Your task to perform on an android device: Search for "panasonic triple a" on ebay, select the first entry, add it to the cart, then select checkout. Image 0: 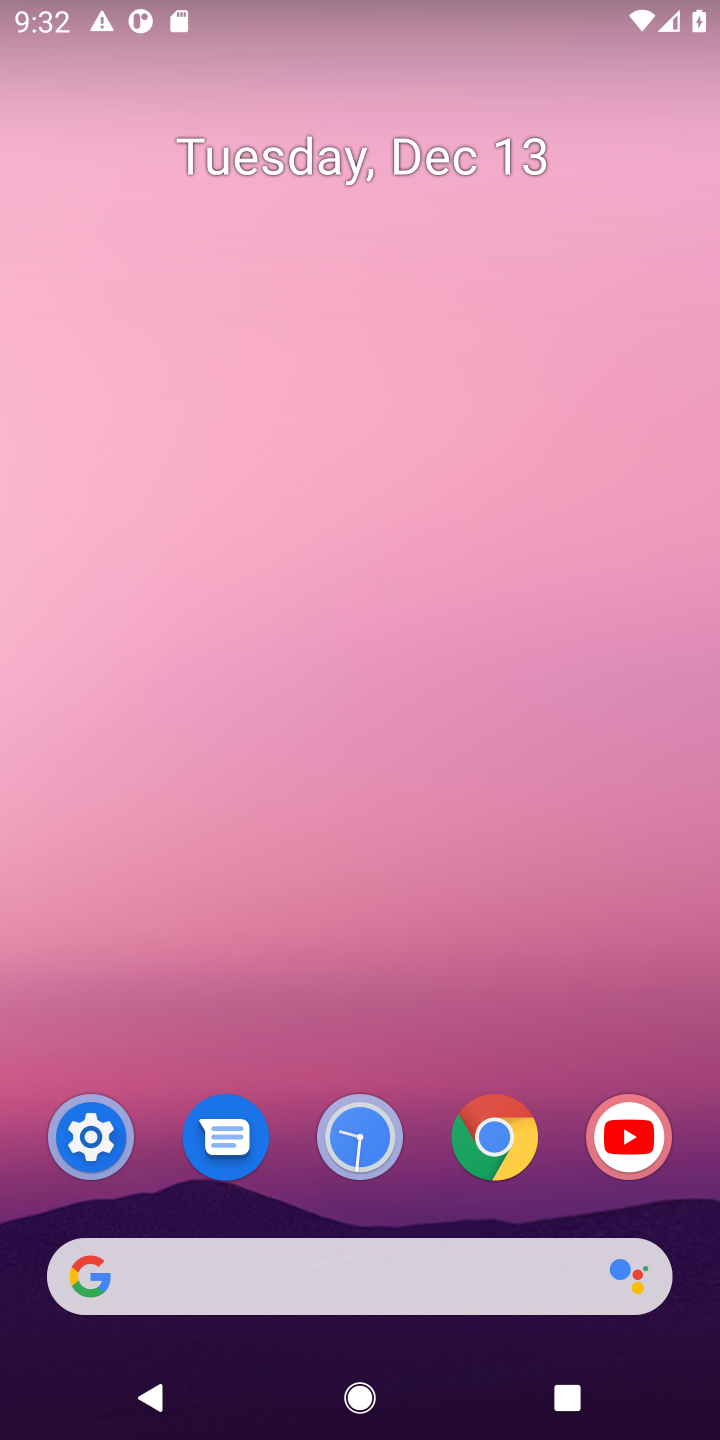
Step 0: click (514, 1143)
Your task to perform on an android device: Search for "panasonic triple a" on ebay, select the first entry, add it to the cart, then select checkout. Image 1: 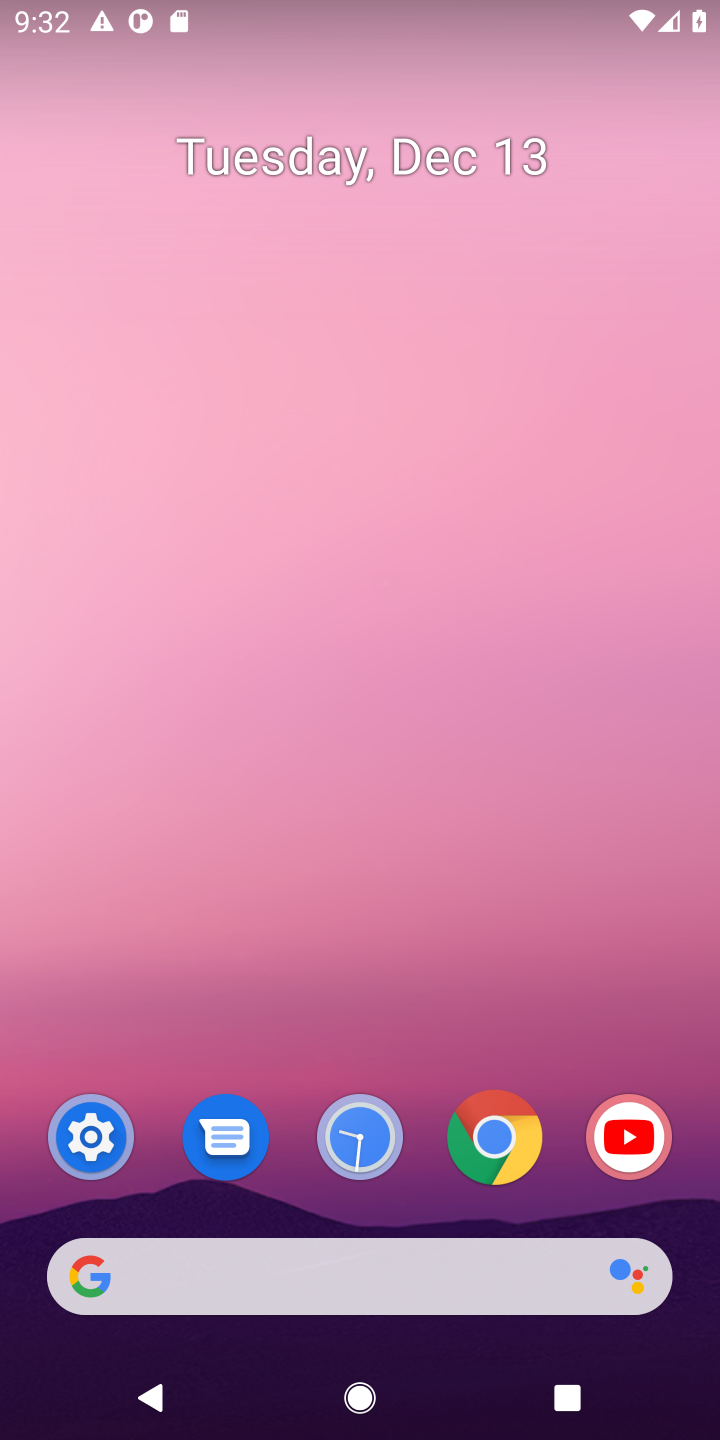
Step 1: click (514, 1143)
Your task to perform on an android device: Search for "panasonic triple a" on ebay, select the first entry, add it to the cart, then select checkout. Image 2: 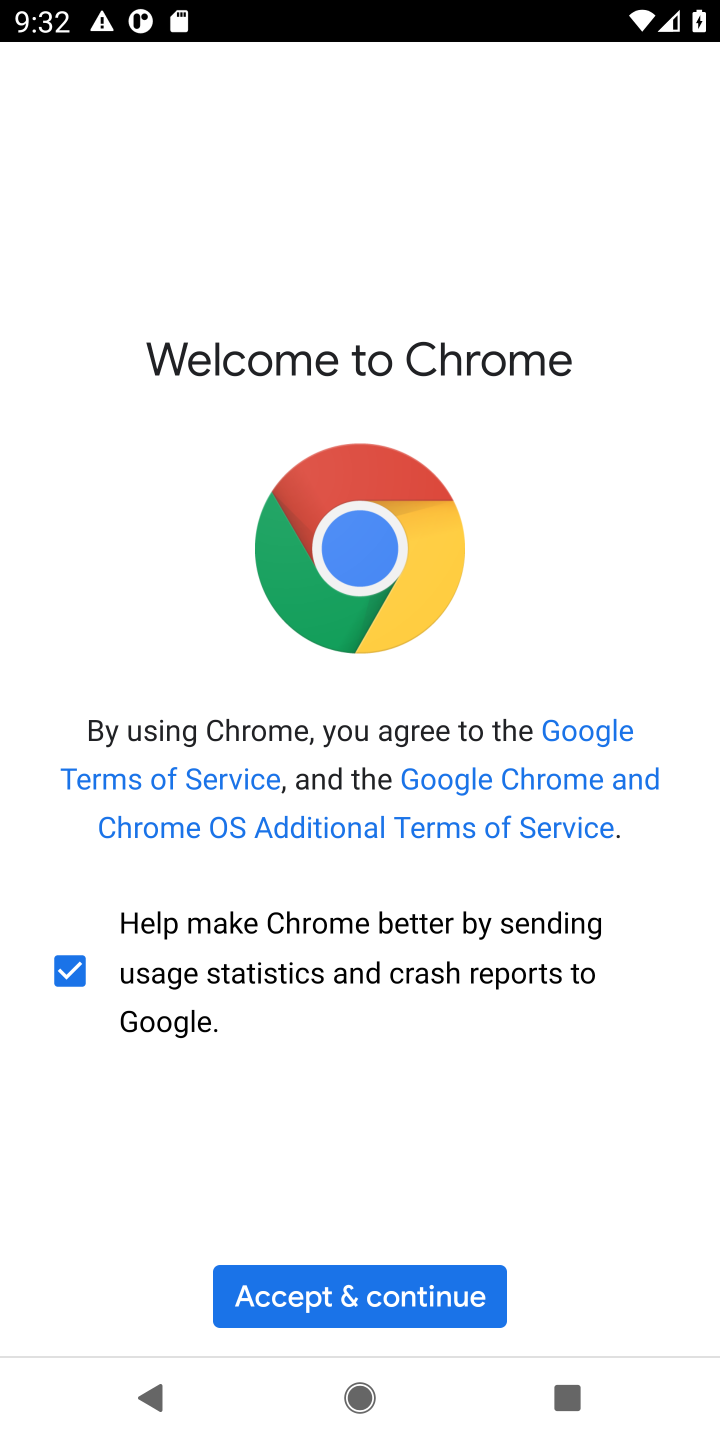
Step 2: click (389, 1281)
Your task to perform on an android device: Search for "panasonic triple a" on ebay, select the first entry, add it to the cart, then select checkout. Image 3: 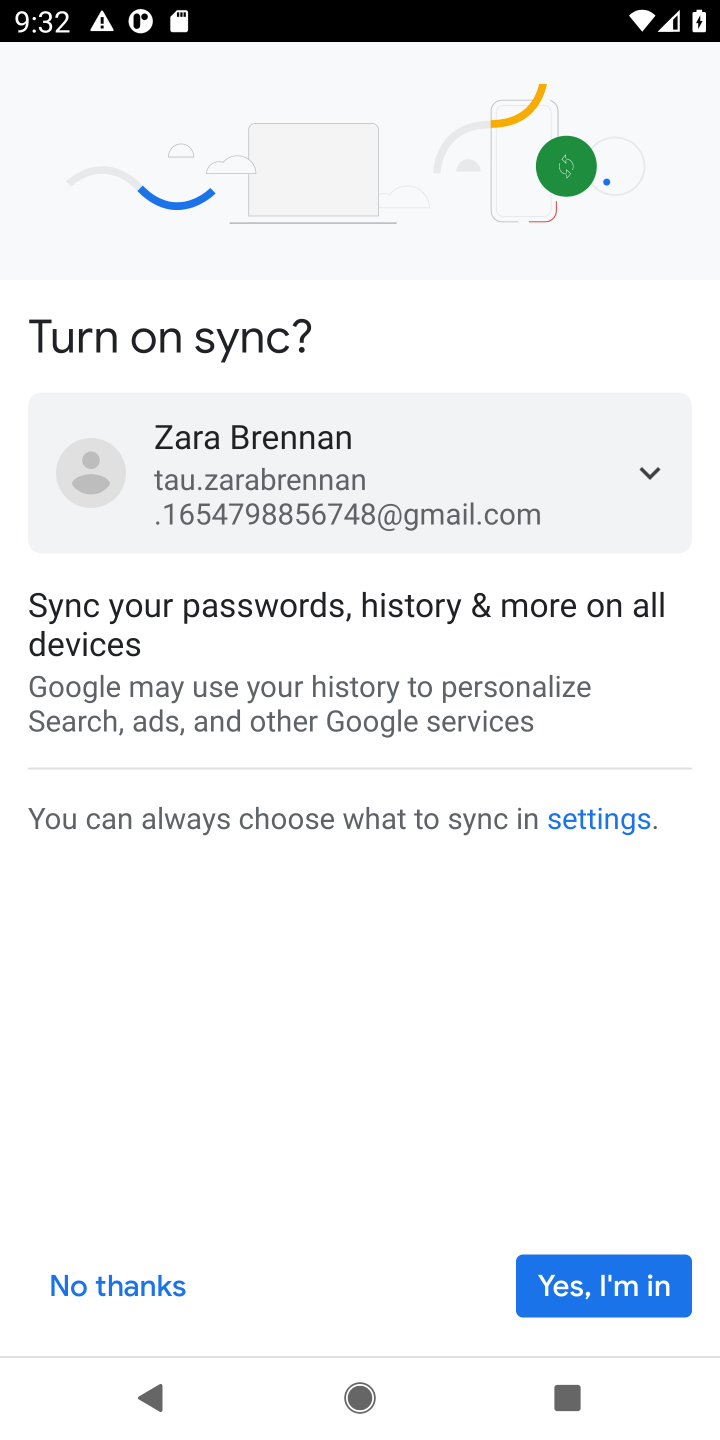
Step 3: click (616, 1294)
Your task to perform on an android device: Search for "panasonic triple a" on ebay, select the first entry, add it to the cart, then select checkout. Image 4: 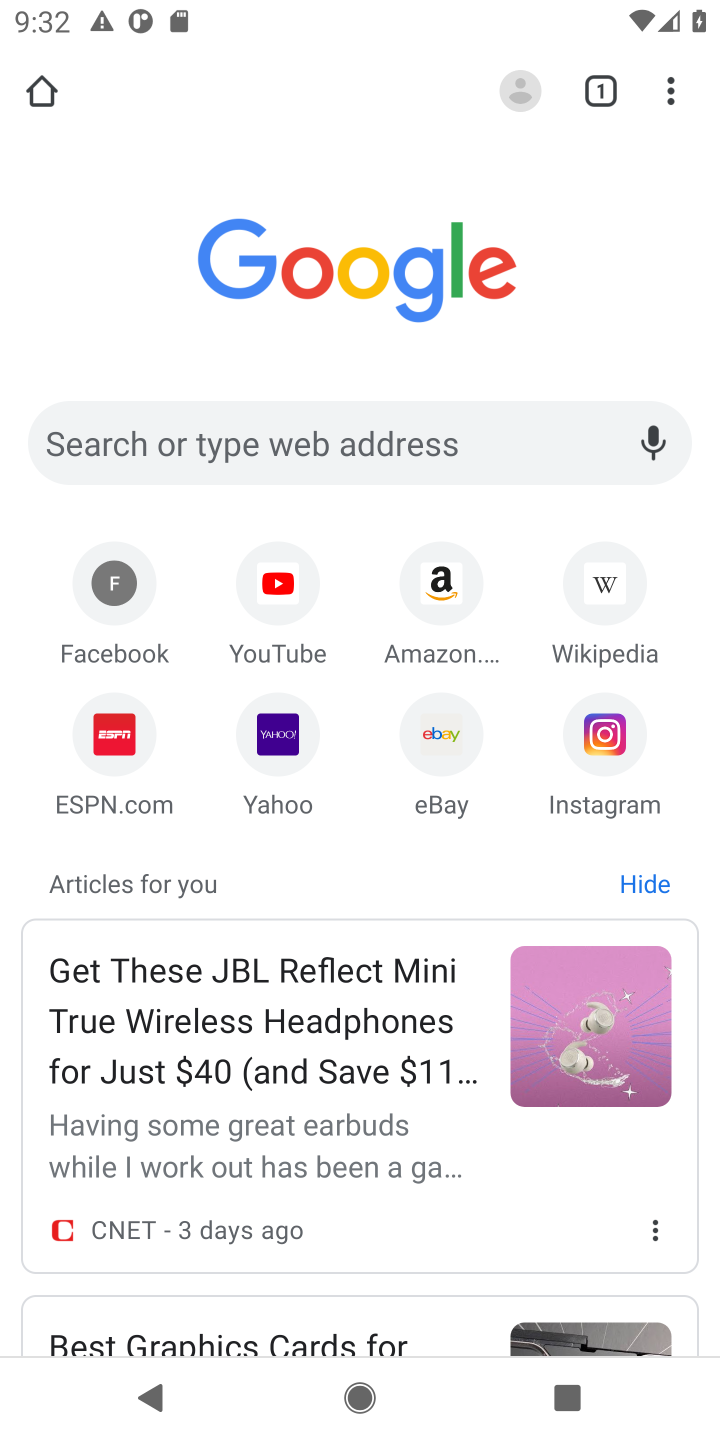
Step 4: click (432, 746)
Your task to perform on an android device: Search for "panasonic triple a" on ebay, select the first entry, add it to the cart, then select checkout. Image 5: 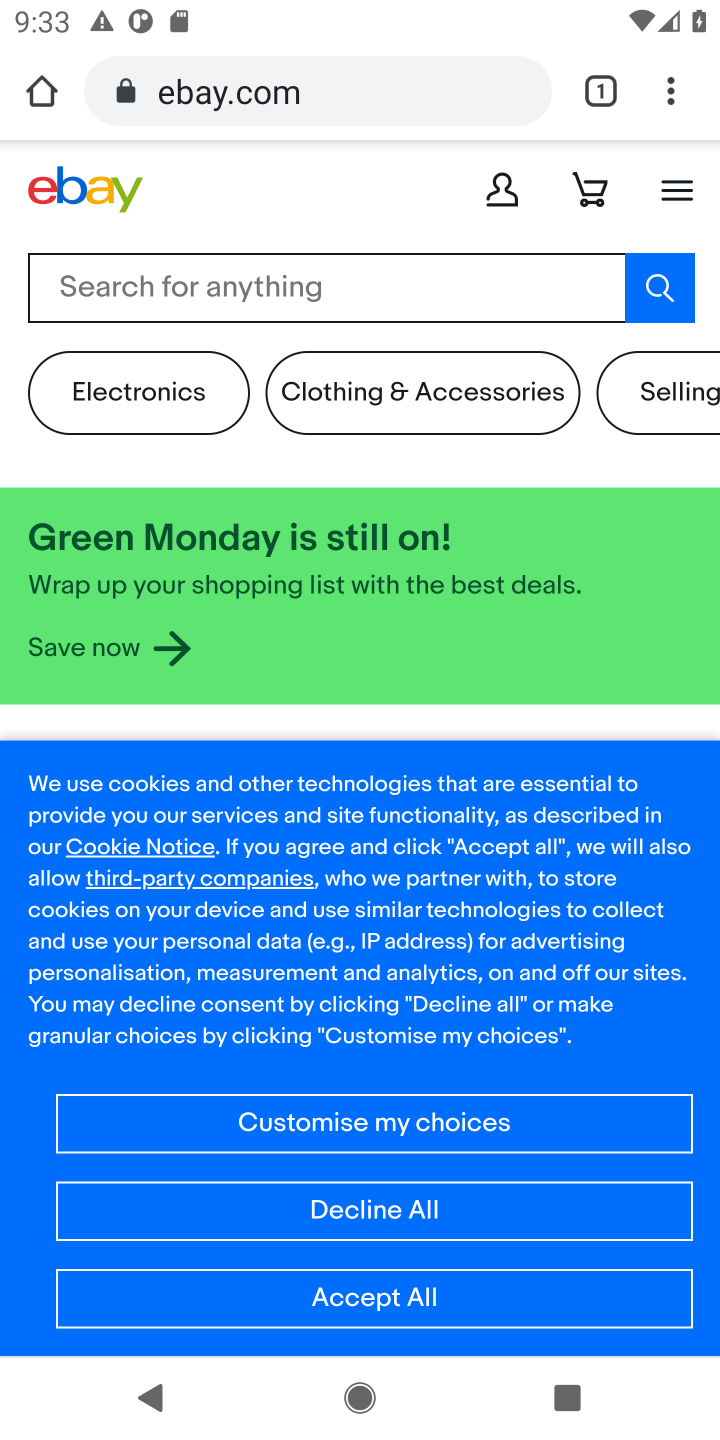
Step 5: click (324, 1198)
Your task to perform on an android device: Search for "panasonic triple a" on ebay, select the first entry, add it to the cart, then select checkout. Image 6: 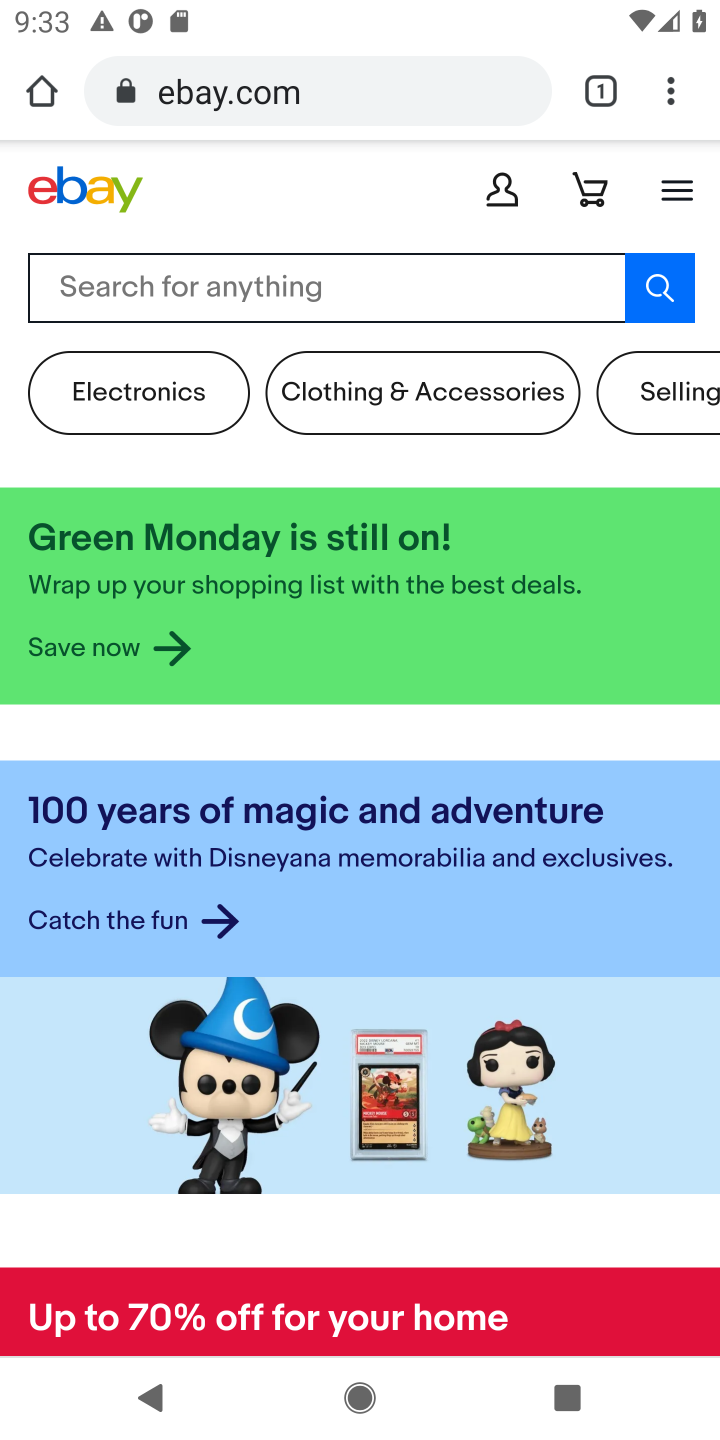
Step 6: click (310, 285)
Your task to perform on an android device: Search for "panasonic triple a" on ebay, select the first entry, add it to the cart, then select checkout. Image 7: 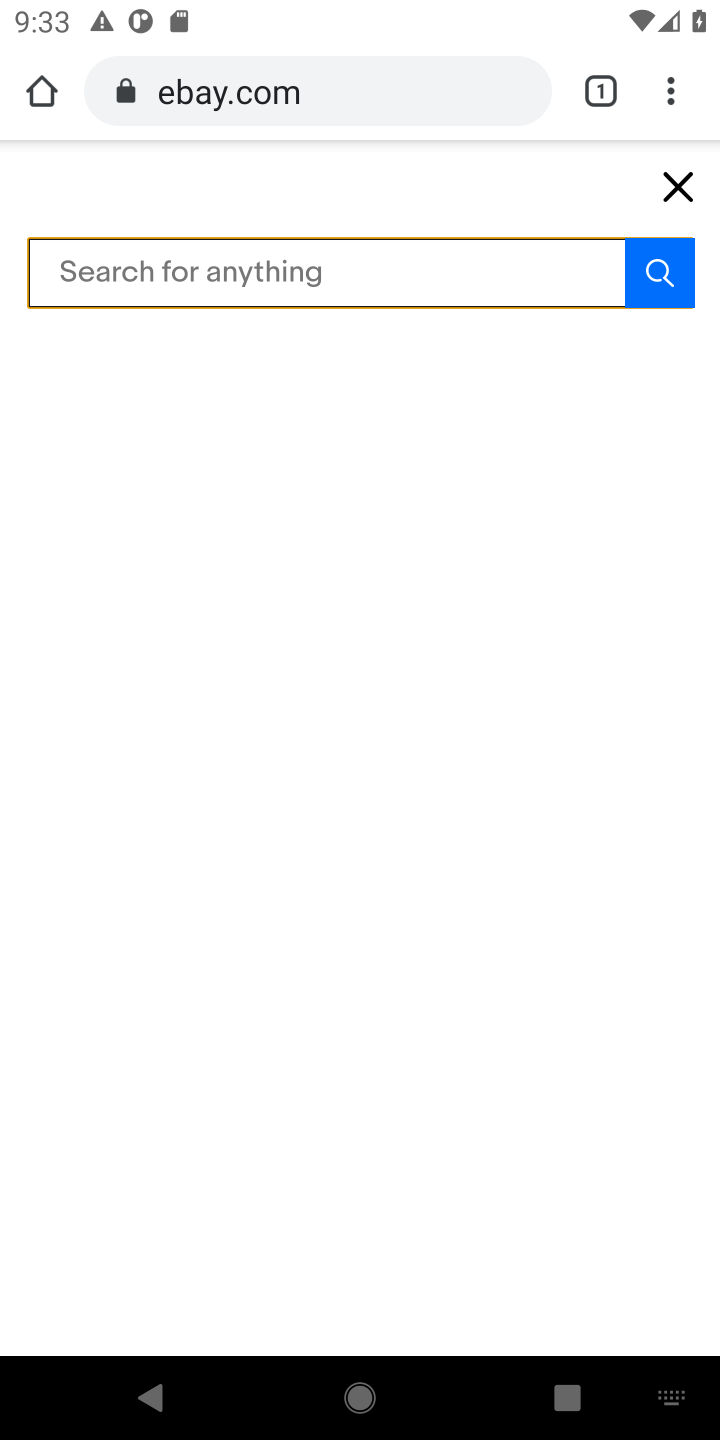
Step 7: type "panasonic triple a"
Your task to perform on an android device: Search for "panasonic triple a" on ebay, select the first entry, add it to the cart, then select checkout. Image 8: 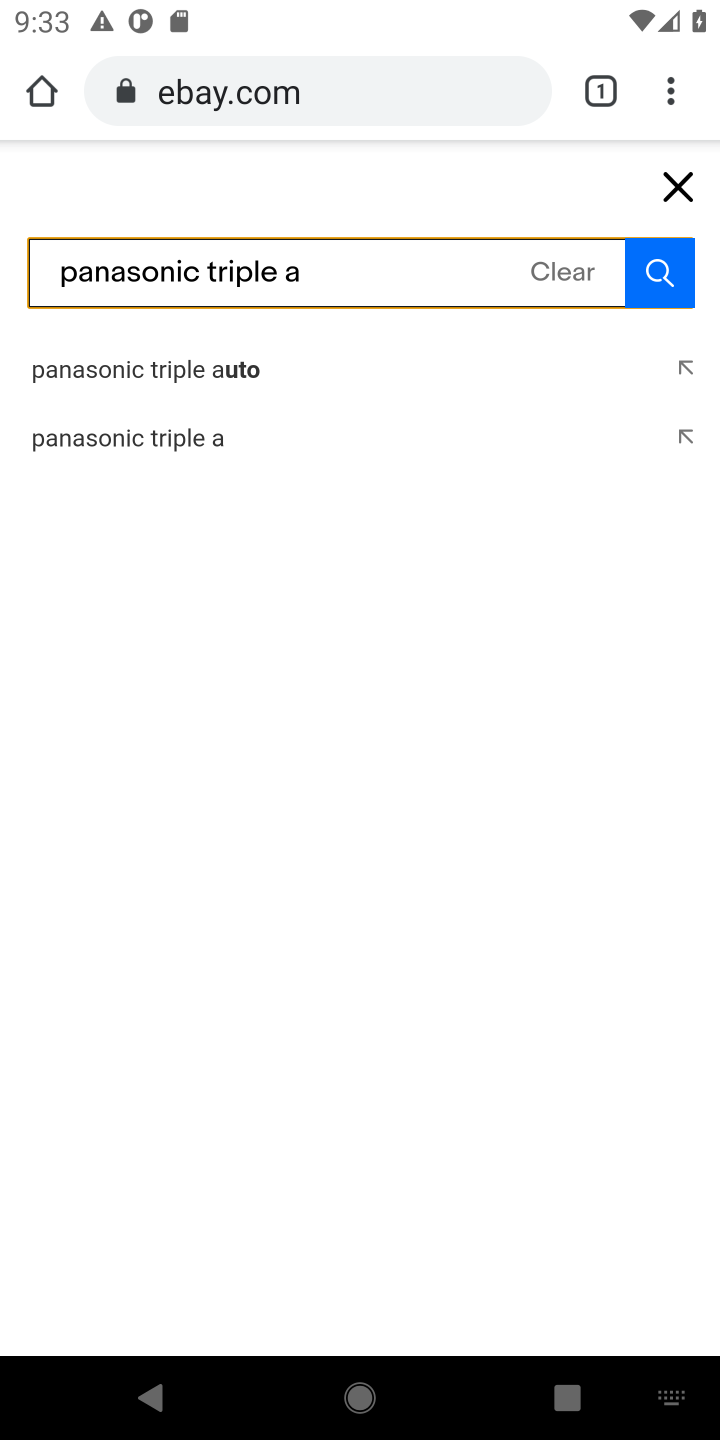
Step 8: click (644, 268)
Your task to perform on an android device: Search for "panasonic triple a" on ebay, select the first entry, add it to the cart, then select checkout. Image 9: 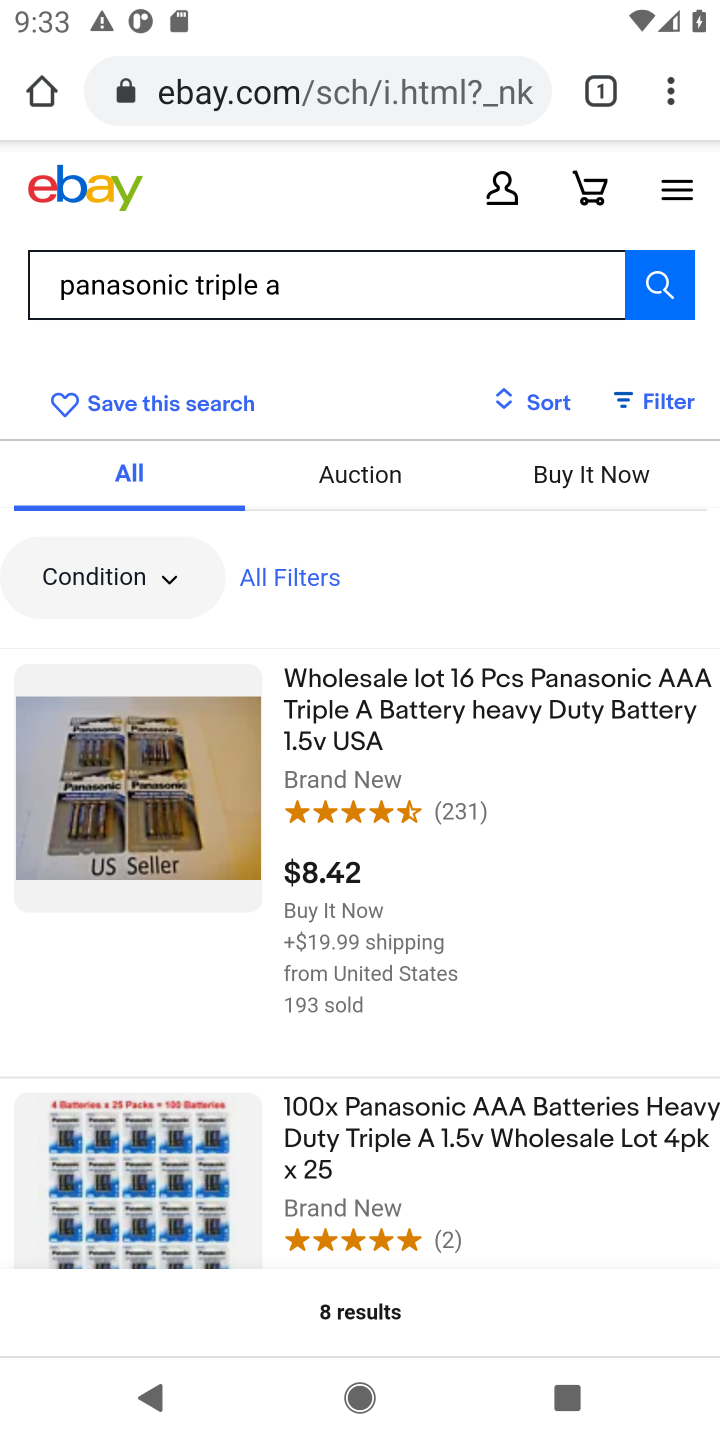
Step 9: click (465, 721)
Your task to perform on an android device: Search for "panasonic triple a" on ebay, select the first entry, add it to the cart, then select checkout. Image 10: 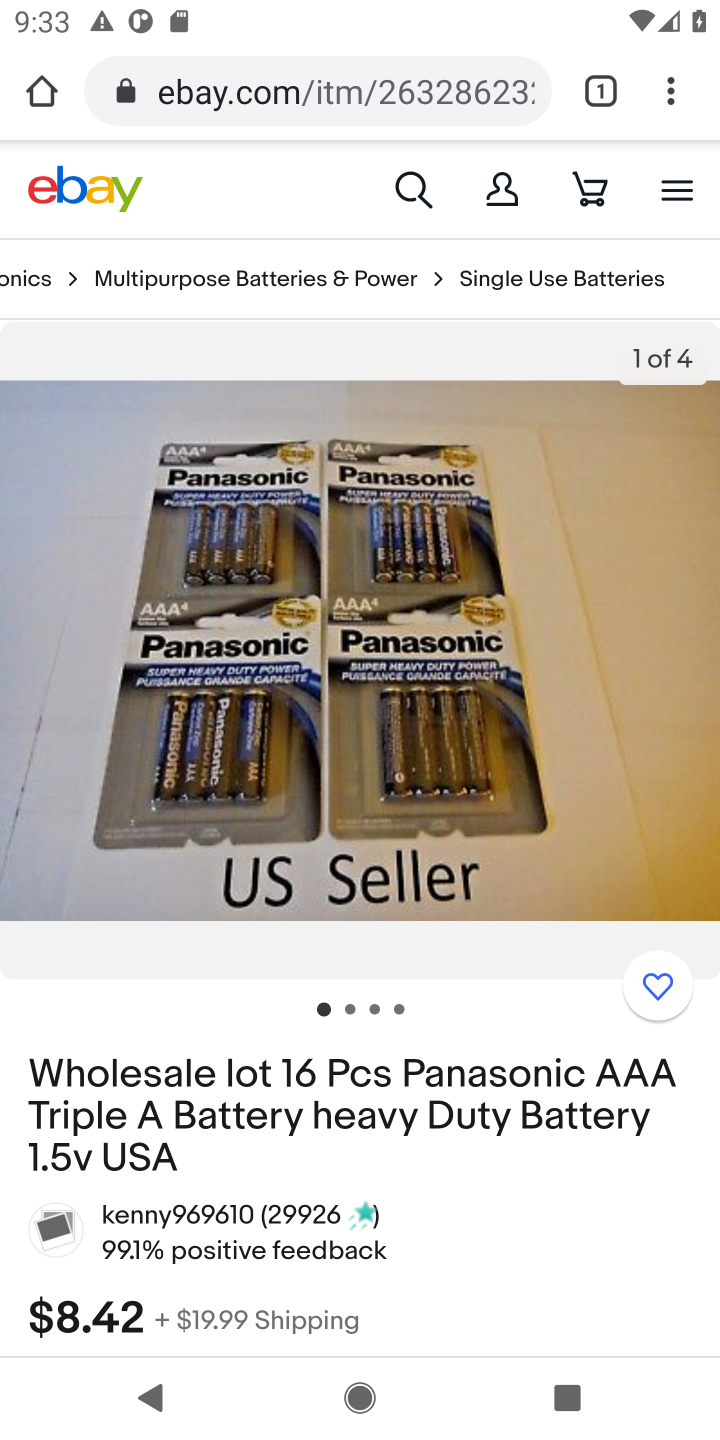
Step 10: drag from (442, 1265) to (565, 372)
Your task to perform on an android device: Search for "panasonic triple a" on ebay, select the first entry, add it to the cart, then select checkout. Image 11: 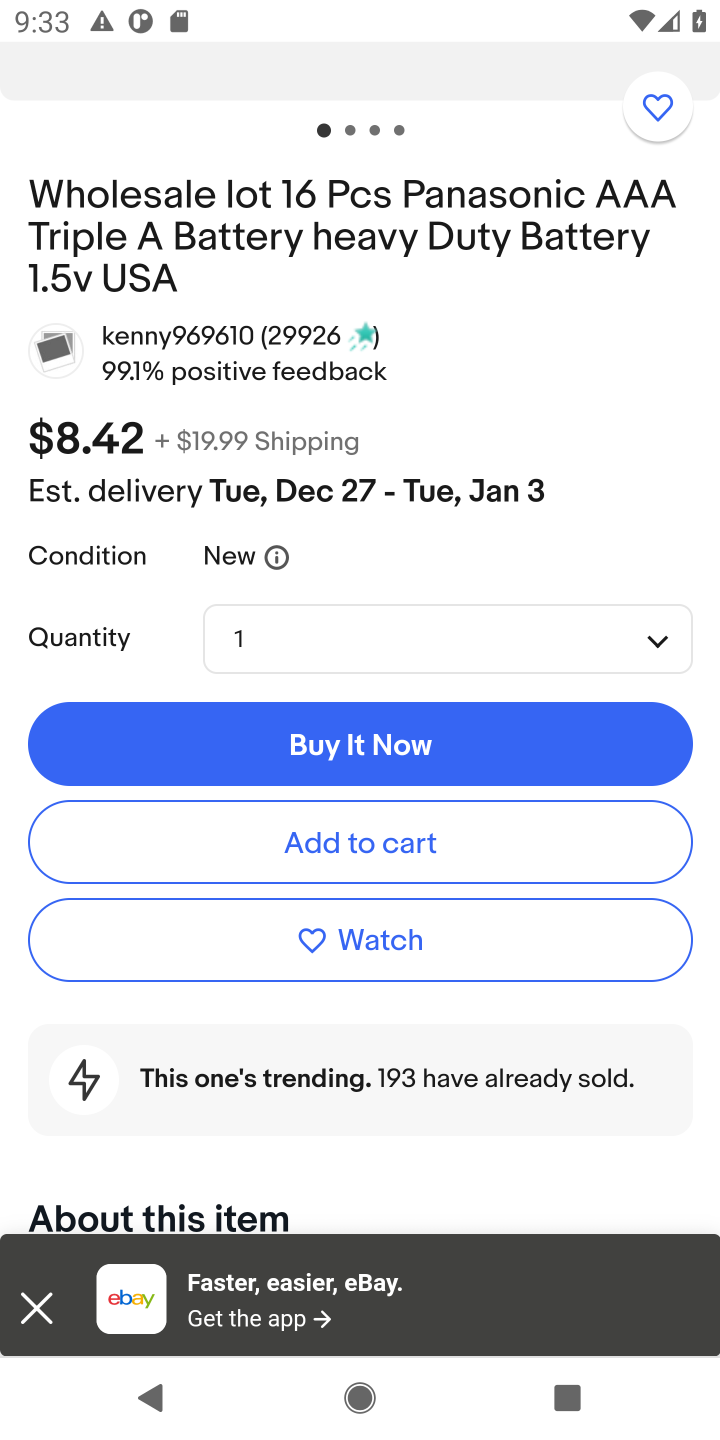
Step 11: click (413, 845)
Your task to perform on an android device: Search for "panasonic triple a" on ebay, select the first entry, add it to the cart, then select checkout. Image 12: 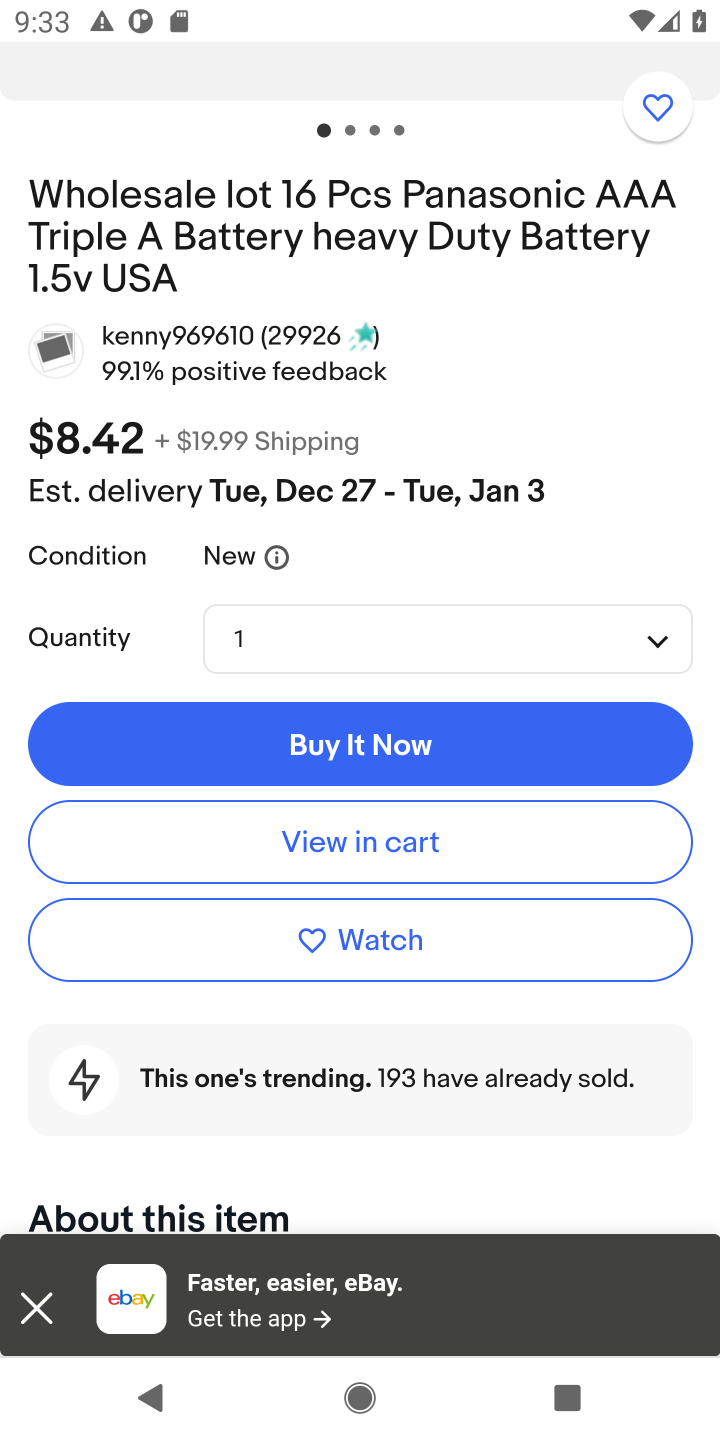
Step 12: task complete